Your task to perform on an android device: open app "Spotify" Image 0: 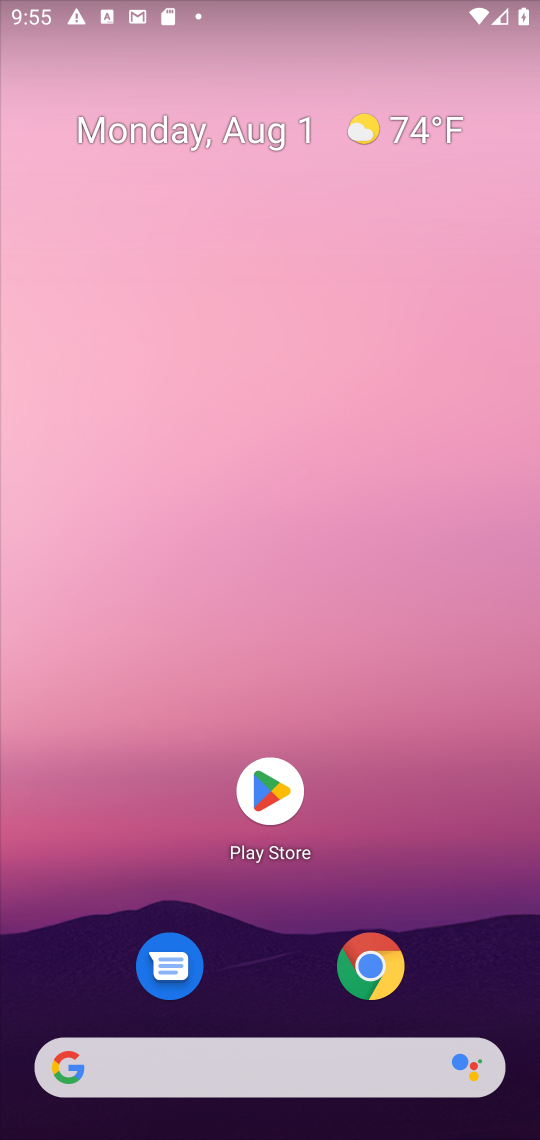
Step 0: click (262, 782)
Your task to perform on an android device: open app "Spotify" Image 1: 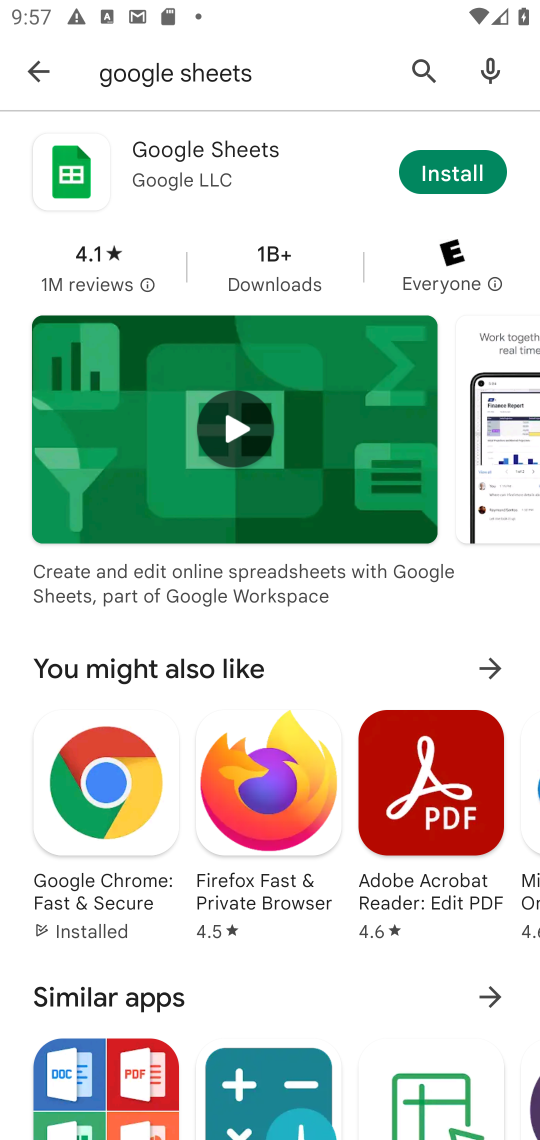
Step 1: click (421, 58)
Your task to perform on an android device: open app "Spotify" Image 2: 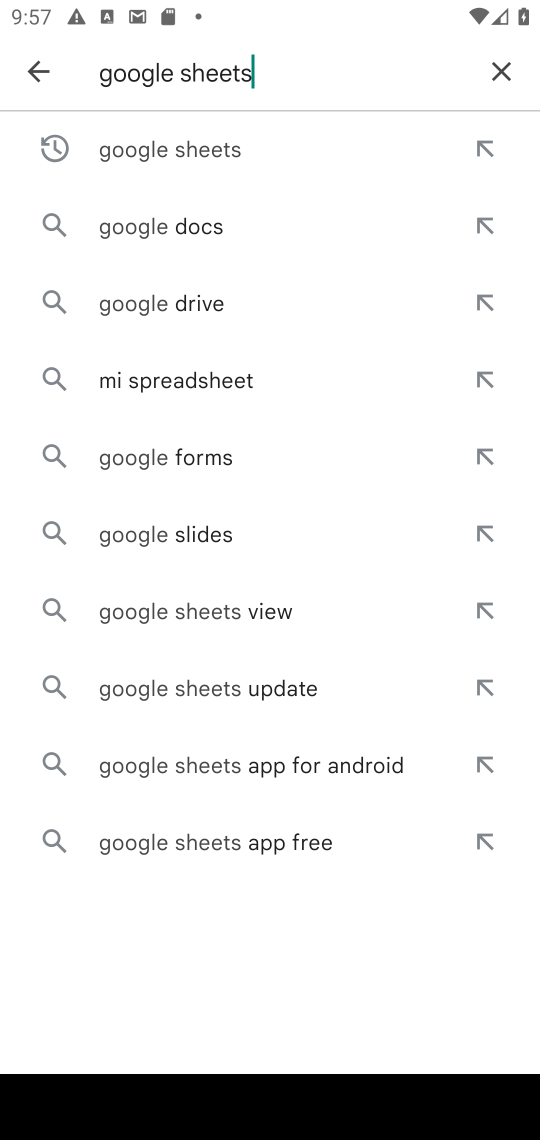
Step 2: click (496, 68)
Your task to perform on an android device: open app "Spotify" Image 3: 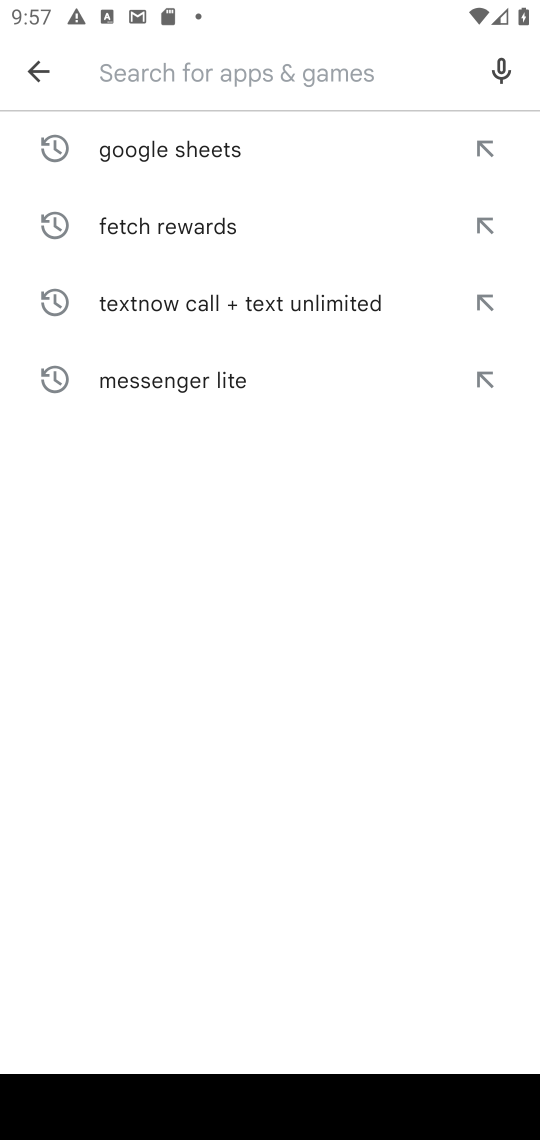
Step 3: type "Spotify"
Your task to perform on an android device: open app "Spotify" Image 4: 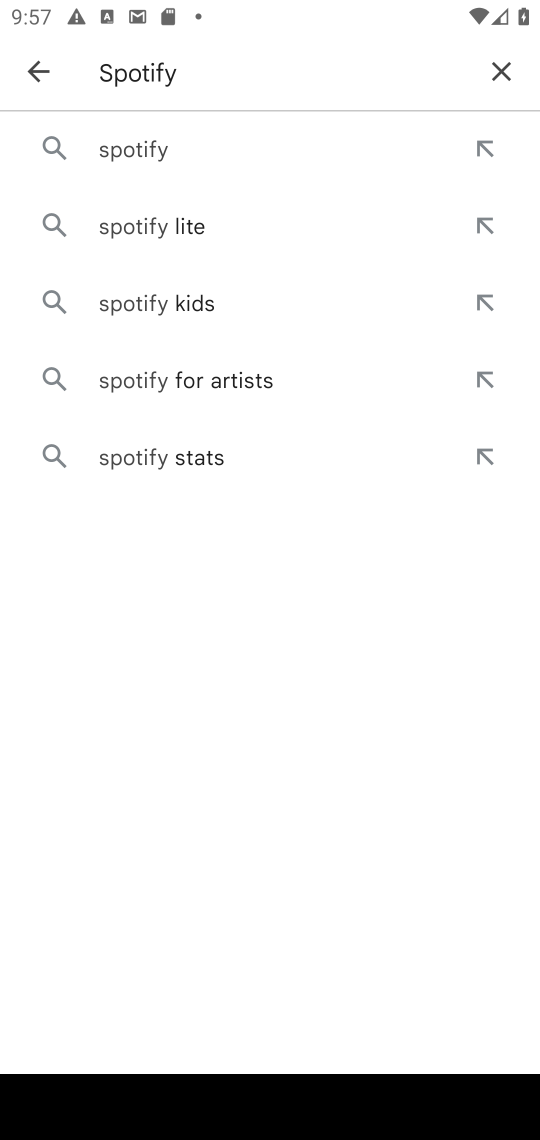
Step 4: click (157, 151)
Your task to perform on an android device: open app "Spotify" Image 5: 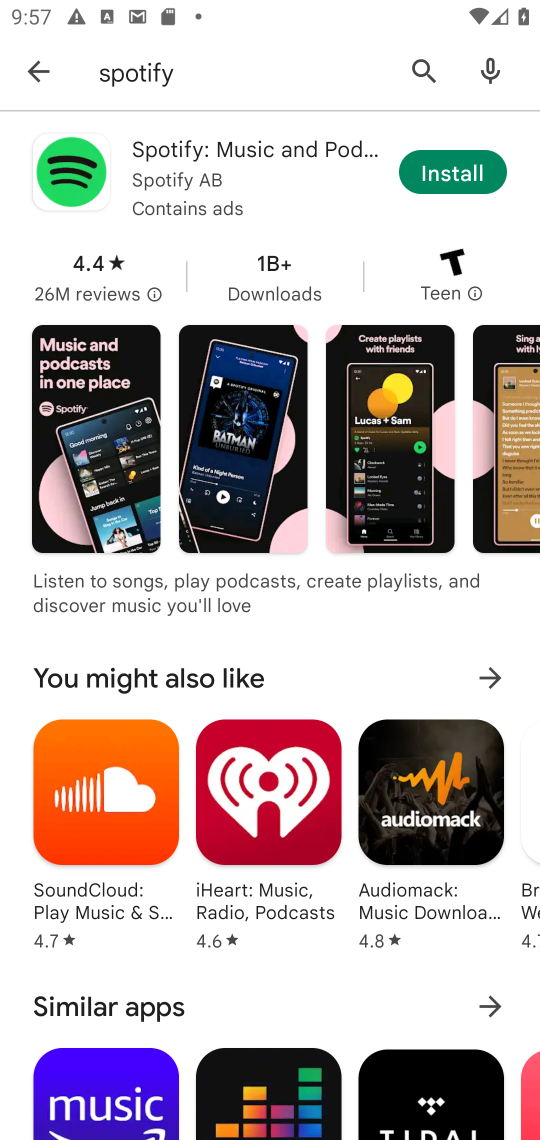
Step 5: click (449, 157)
Your task to perform on an android device: open app "Spotify" Image 6: 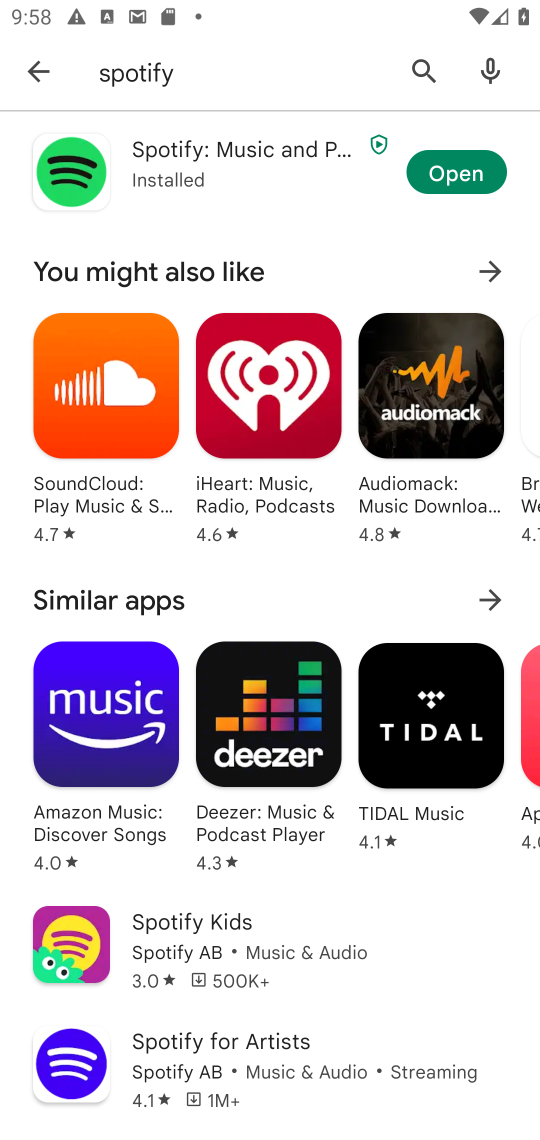
Step 6: click (472, 176)
Your task to perform on an android device: open app "Spotify" Image 7: 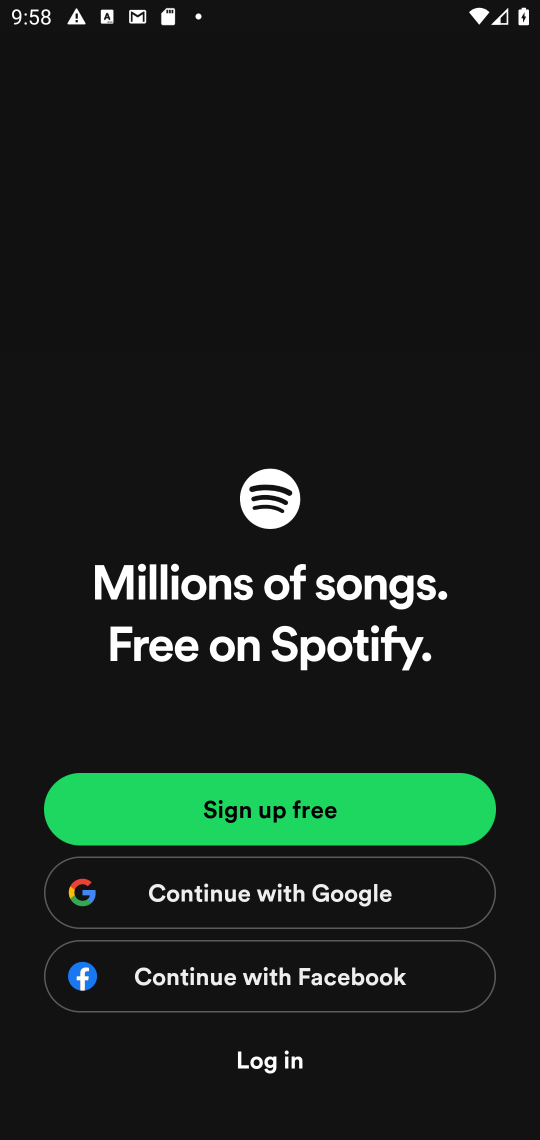
Step 7: task complete